Your task to perform on an android device: toggle improve location accuracy Image 0: 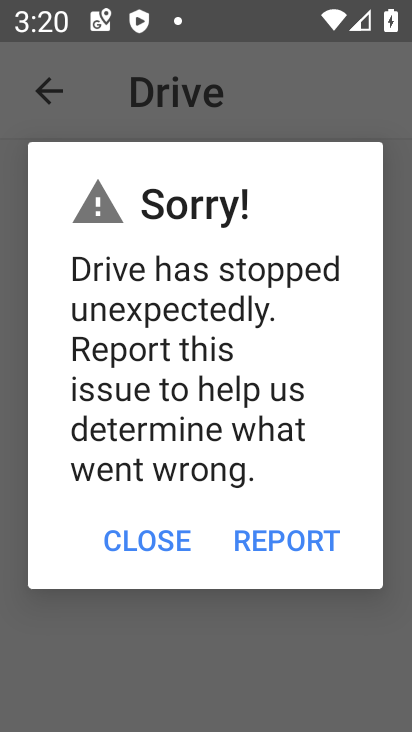
Step 0: press home button
Your task to perform on an android device: toggle improve location accuracy Image 1: 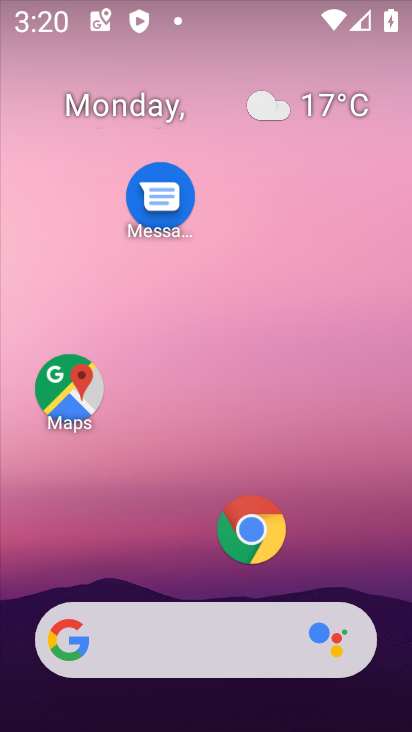
Step 1: drag from (316, 579) to (370, 20)
Your task to perform on an android device: toggle improve location accuracy Image 2: 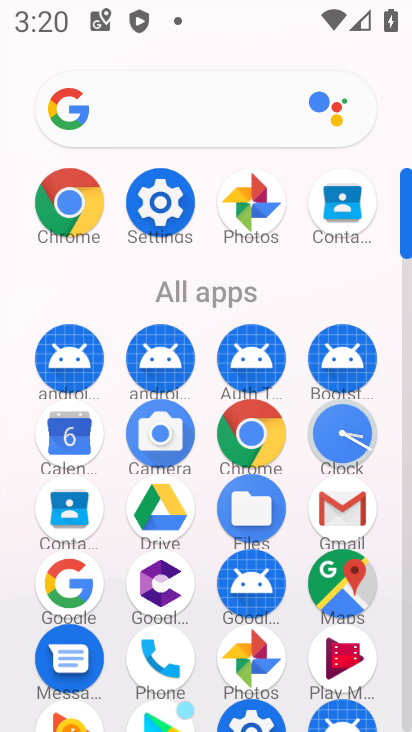
Step 2: click (157, 198)
Your task to perform on an android device: toggle improve location accuracy Image 3: 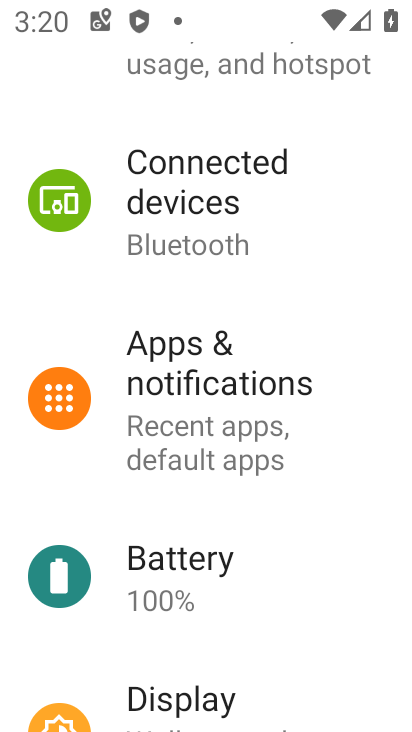
Step 3: drag from (257, 659) to (300, 35)
Your task to perform on an android device: toggle improve location accuracy Image 4: 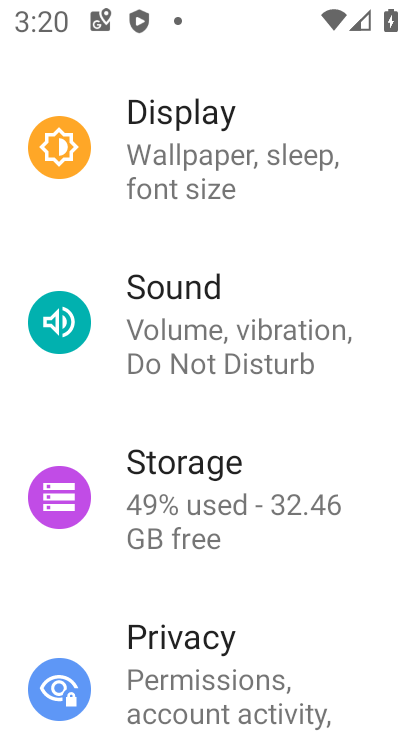
Step 4: drag from (302, 658) to (345, 178)
Your task to perform on an android device: toggle improve location accuracy Image 5: 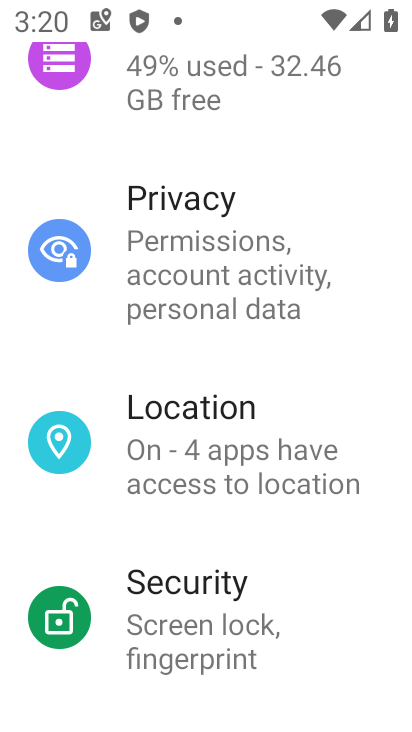
Step 5: click (272, 410)
Your task to perform on an android device: toggle improve location accuracy Image 6: 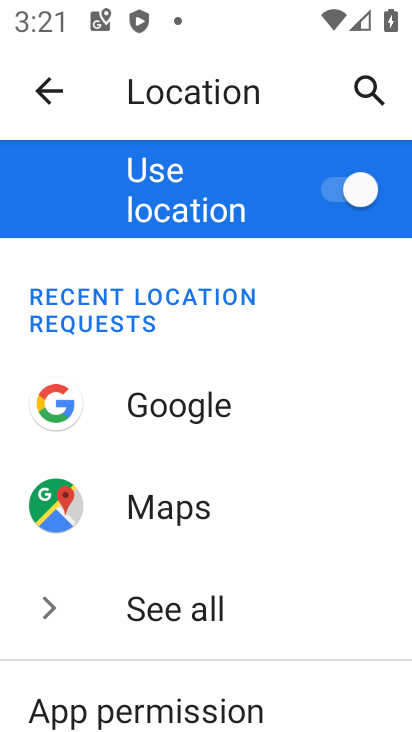
Step 6: drag from (265, 679) to (306, 368)
Your task to perform on an android device: toggle improve location accuracy Image 7: 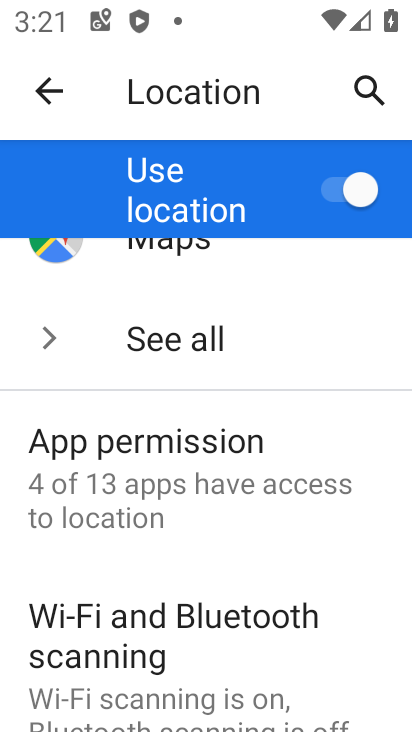
Step 7: drag from (225, 686) to (262, 313)
Your task to perform on an android device: toggle improve location accuracy Image 8: 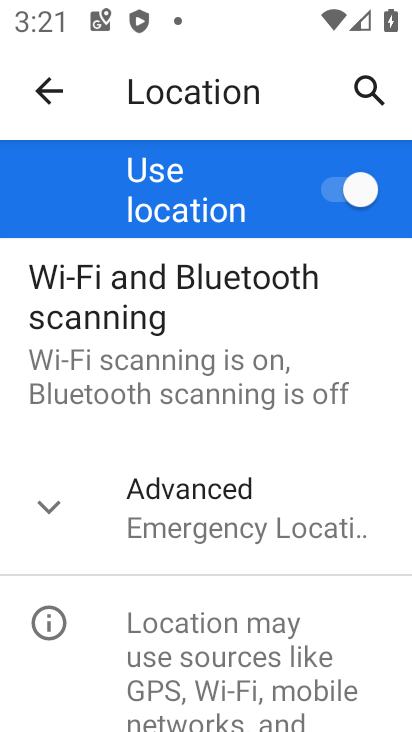
Step 8: click (49, 492)
Your task to perform on an android device: toggle improve location accuracy Image 9: 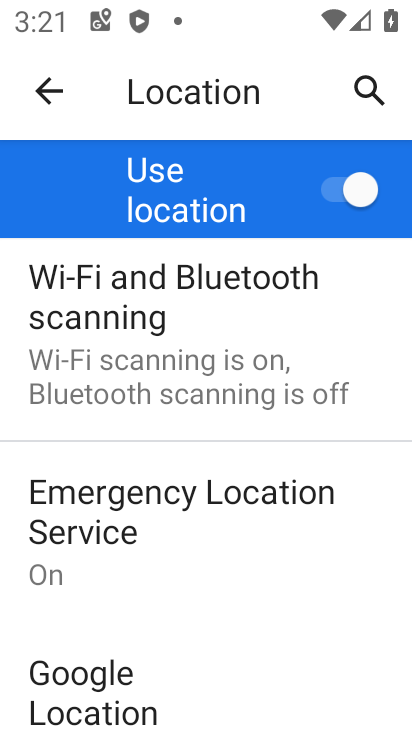
Step 9: click (182, 698)
Your task to perform on an android device: toggle improve location accuracy Image 10: 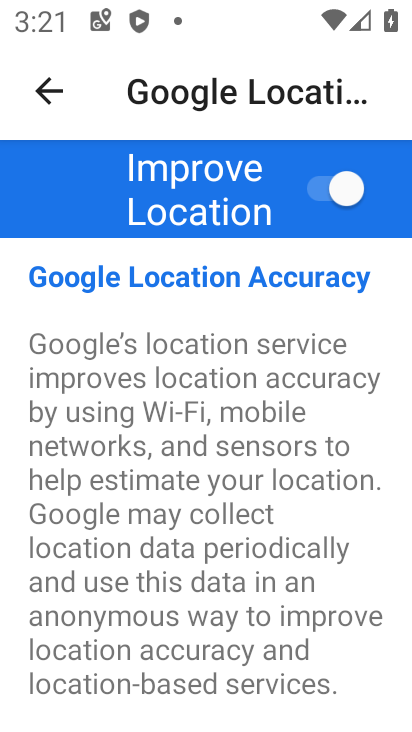
Step 10: drag from (223, 634) to (262, 312)
Your task to perform on an android device: toggle improve location accuracy Image 11: 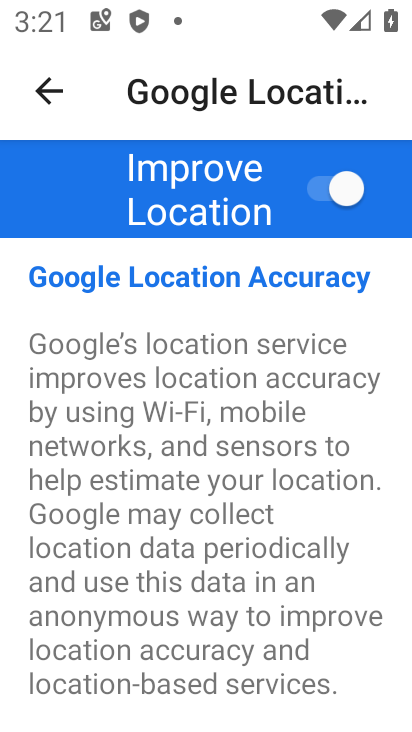
Step 11: click (333, 181)
Your task to perform on an android device: toggle improve location accuracy Image 12: 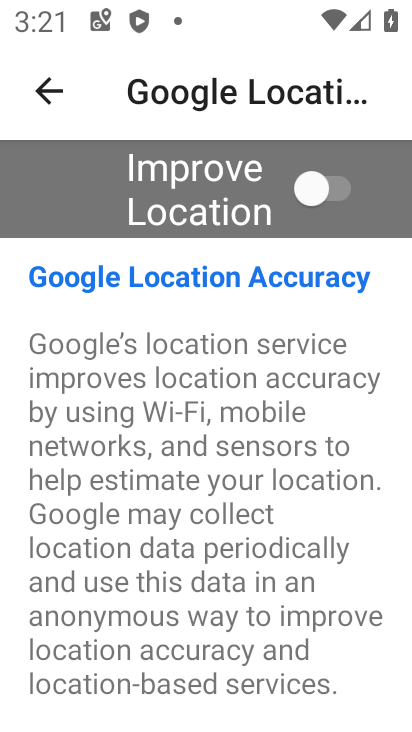
Step 12: task complete